Your task to perform on an android device: toggle data saver in the chrome app Image 0: 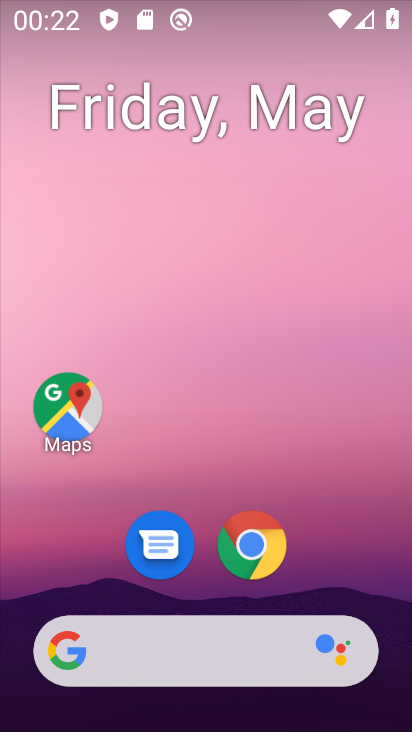
Step 0: click (260, 546)
Your task to perform on an android device: toggle data saver in the chrome app Image 1: 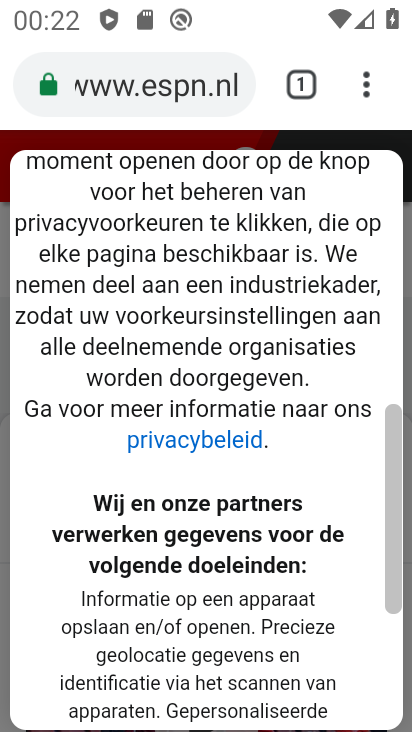
Step 1: click (365, 98)
Your task to perform on an android device: toggle data saver in the chrome app Image 2: 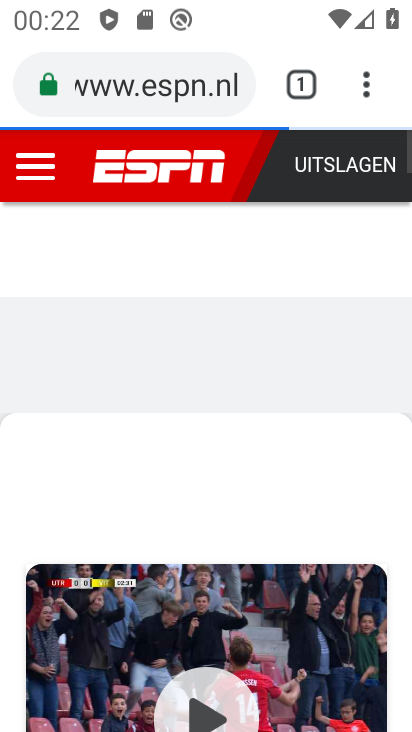
Step 2: click (361, 93)
Your task to perform on an android device: toggle data saver in the chrome app Image 3: 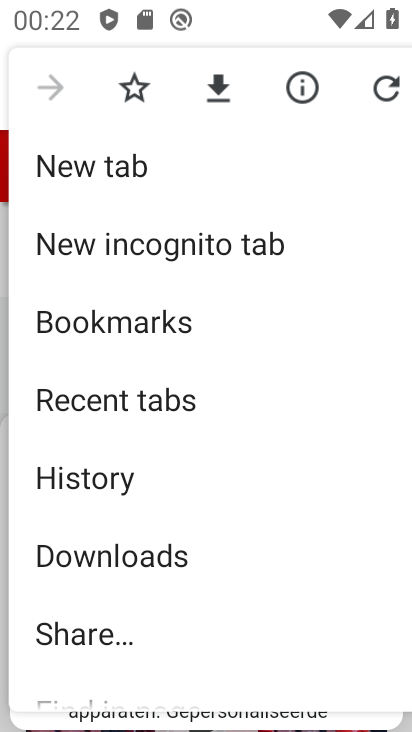
Step 3: drag from (120, 578) to (100, 249)
Your task to perform on an android device: toggle data saver in the chrome app Image 4: 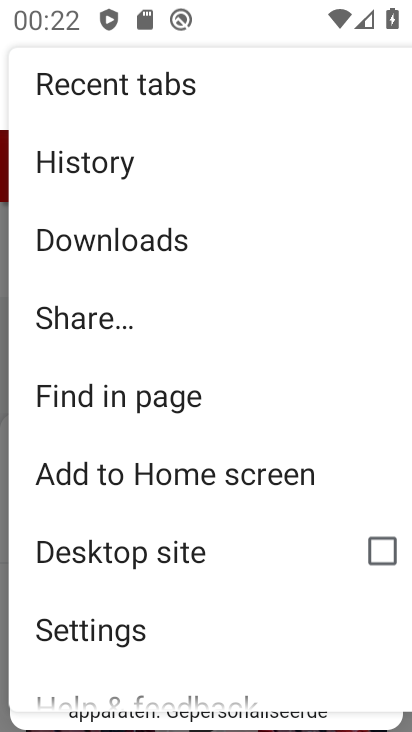
Step 4: click (64, 633)
Your task to perform on an android device: toggle data saver in the chrome app Image 5: 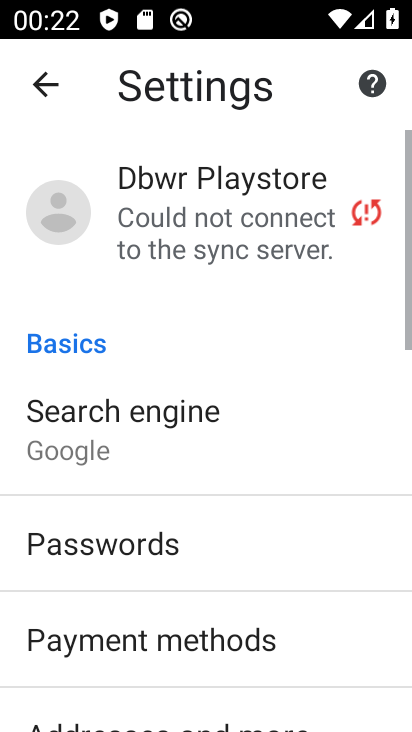
Step 5: drag from (162, 674) to (182, 289)
Your task to perform on an android device: toggle data saver in the chrome app Image 6: 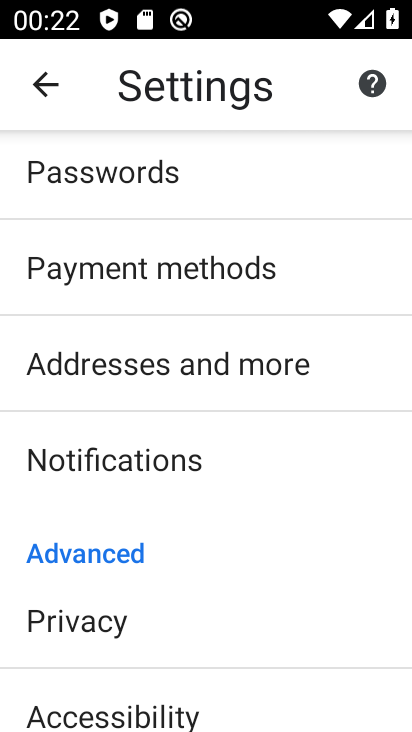
Step 6: drag from (166, 613) to (163, 303)
Your task to perform on an android device: toggle data saver in the chrome app Image 7: 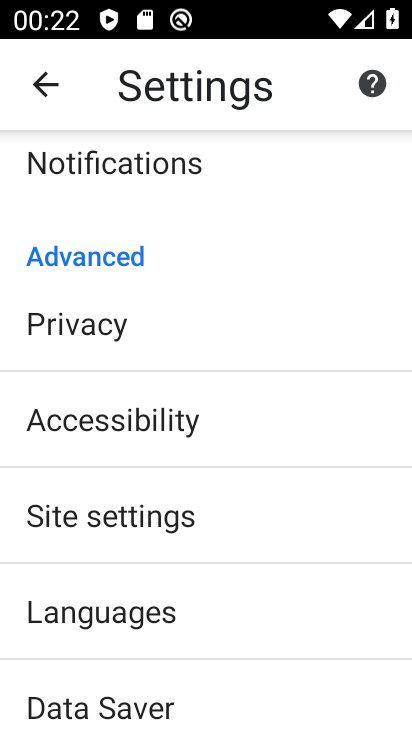
Step 7: click (99, 707)
Your task to perform on an android device: toggle data saver in the chrome app Image 8: 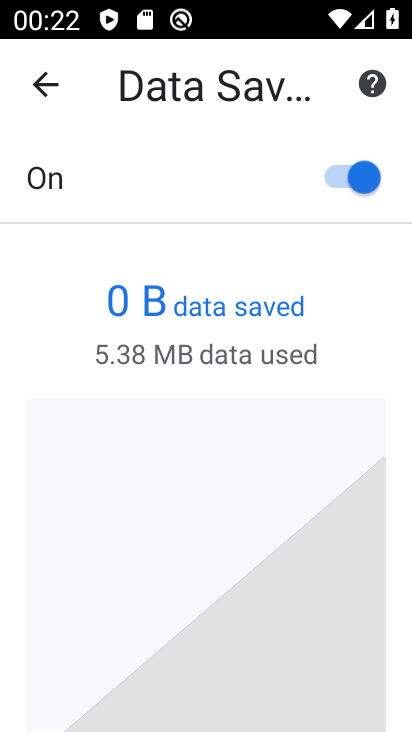
Step 8: press home button
Your task to perform on an android device: toggle data saver in the chrome app Image 9: 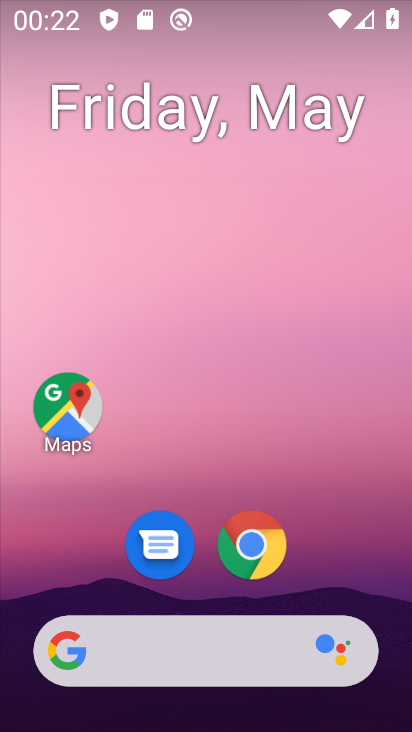
Step 9: drag from (288, 540) to (278, 233)
Your task to perform on an android device: toggle data saver in the chrome app Image 10: 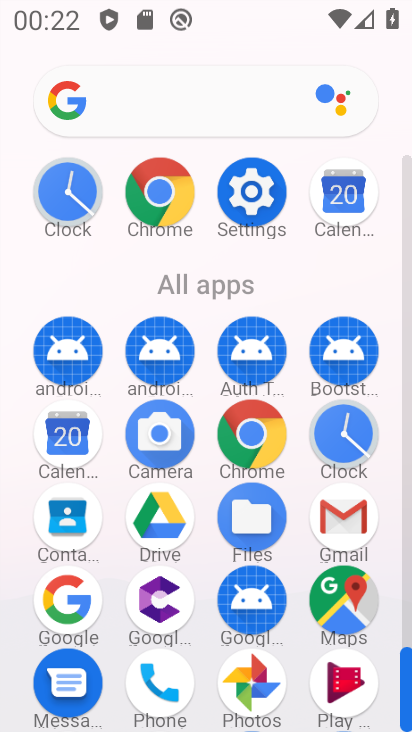
Step 10: click (153, 193)
Your task to perform on an android device: toggle data saver in the chrome app Image 11: 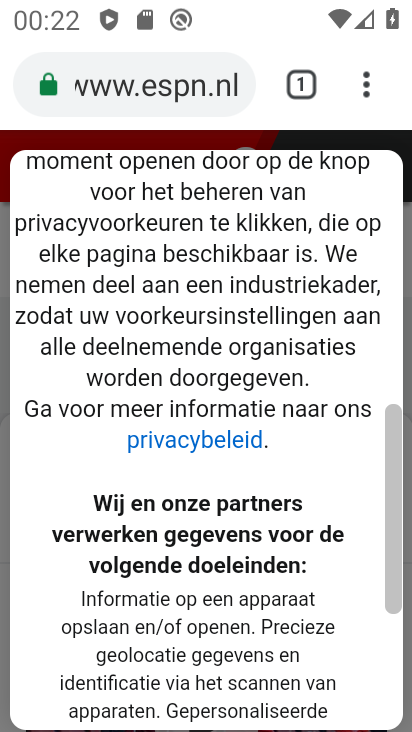
Step 11: click (366, 86)
Your task to perform on an android device: toggle data saver in the chrome app Image 12: 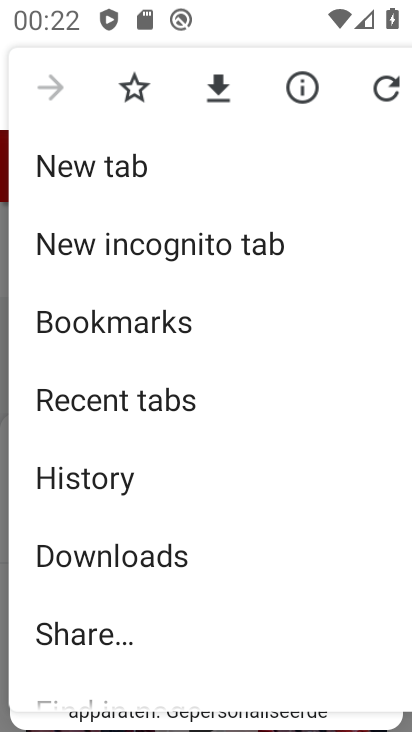
Step 12: drag from (151, 584) to (166, 257)
Your task to perform on an android device: toggle data saver in the chrome app Image 13: 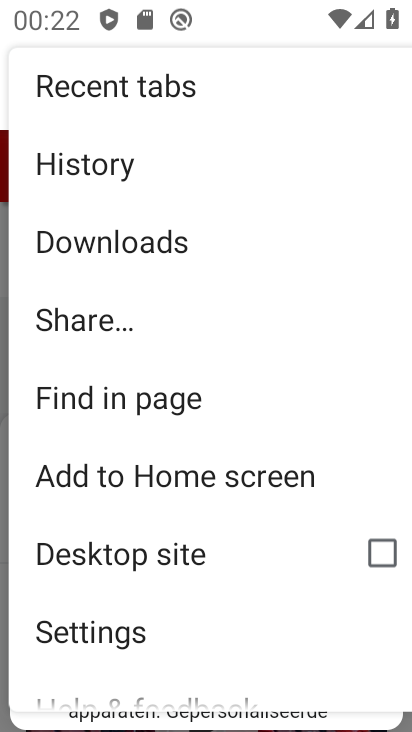
Step 13: click (80, 631)
Your task to perform on an android device: toggle data saver in the chrome app Image 14: 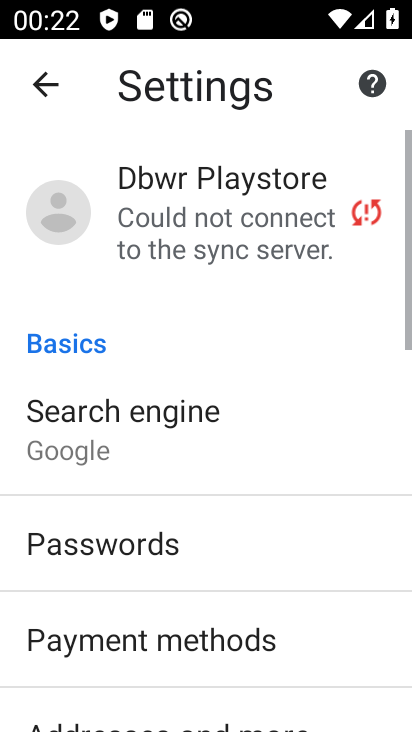
Step 14: drag from (105, 667) to (164, 297)
Your task to perform on an android device: toggle data saver in the chrome app Image 15: 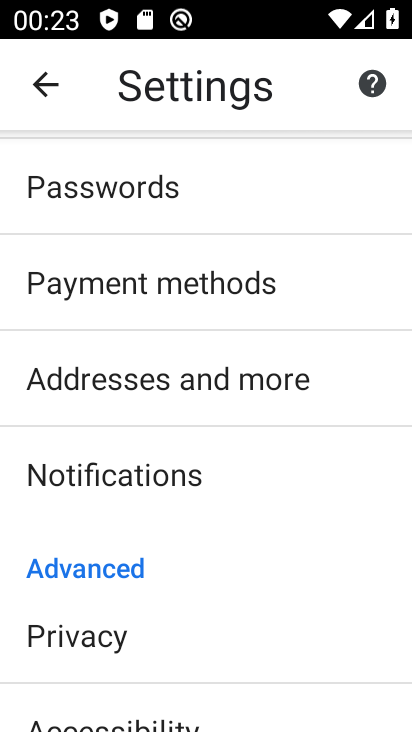
Step 15: click (163, 375)
Your task to perform on an android device: toggle data saver in the chrome app Image 16: 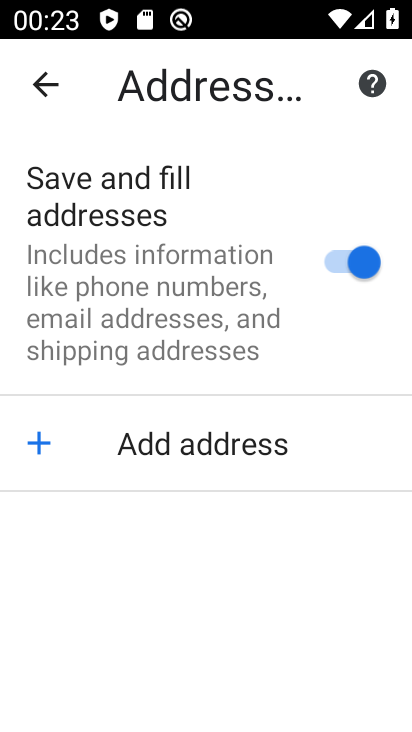
Step 16: click (47, 83)
Your task to perform on an android device: toggle data saver in the chrome app Image 17: 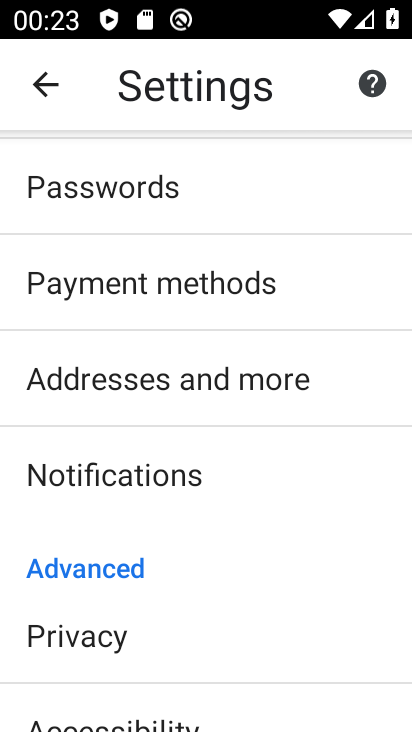
Step 17: drag from (233, 647) to (213, 153)
Your task to perform on an android device: toggle data saver in the chrome app Image 18: 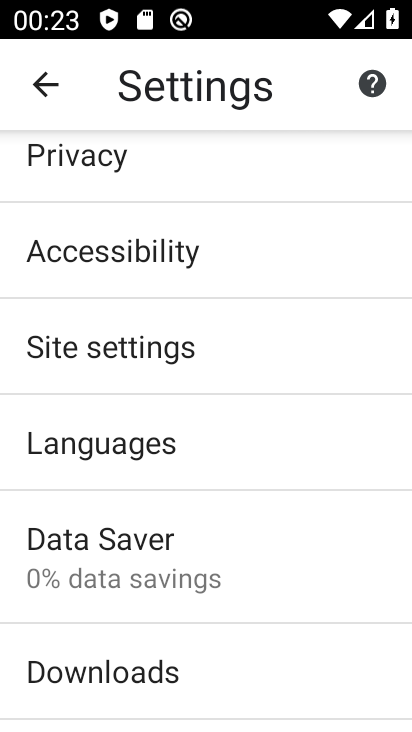
Step 18: click (142, 572)
Your task to perform on an android device: toggle data saver in the chrome app Image 19: 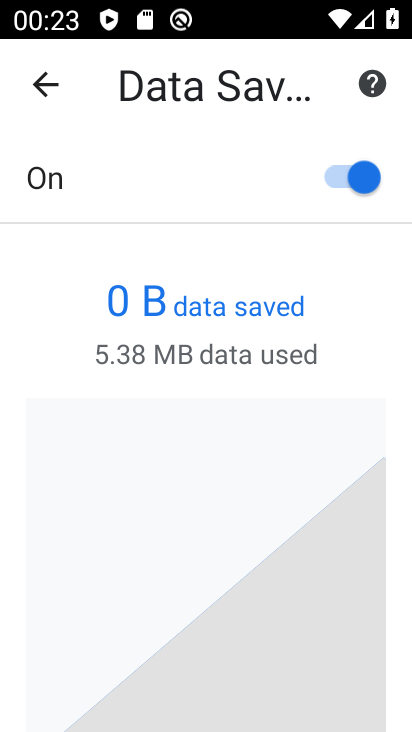
Step 19: click (338, 185)
Your task to perform on an android device: toggle data saver in the chrome app Image 20: 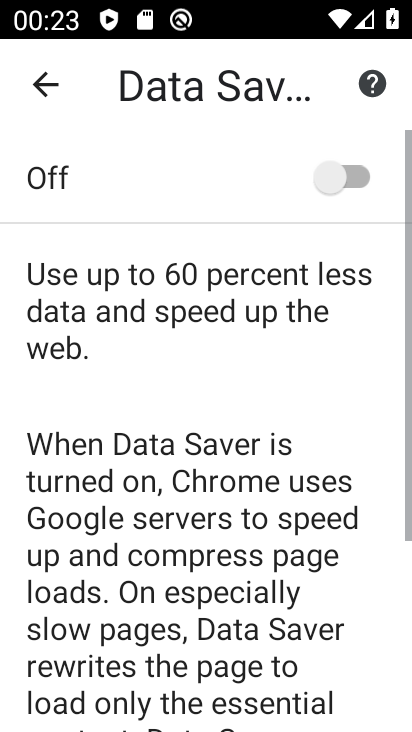
Step 20: task complete